Your task to perform on an android device: Open calendar and show me the second week of next month Image 0: 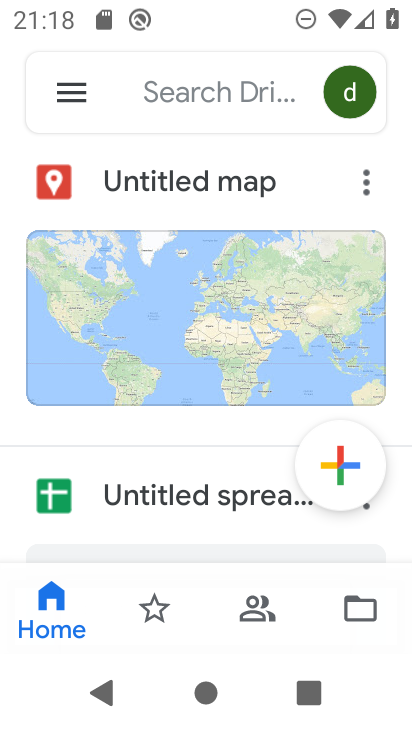
Step 0: press home button
Your task to perform on an android device: Open calendar and show me the second week of next month Image 1: 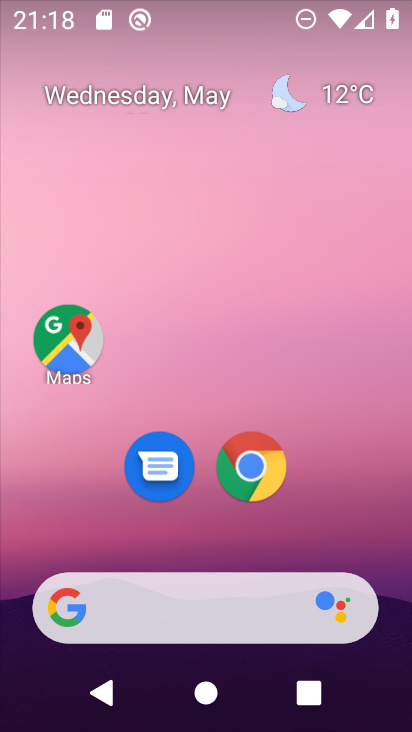
Step 1: drag from (204, 532) to (226, 73)
Your task to perform on an android device: Open calendar and show me the second week of next month Image 2: 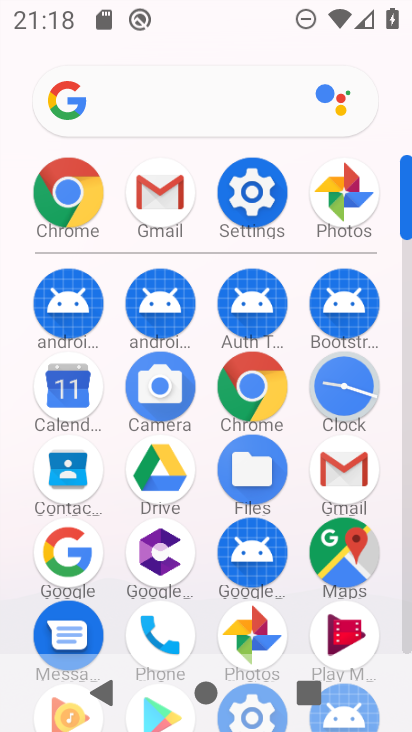
Step 2: click (67, 376)
Your task to perform on an android device: Open calendar and show me the second week of next month Image 3: 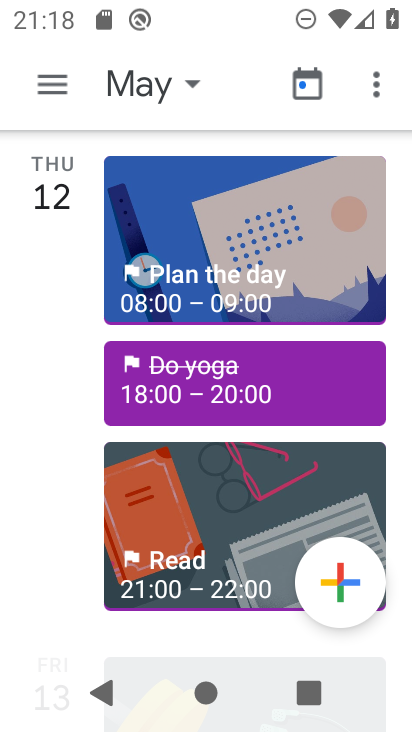
Step 3: click (53, 91)
Your task to perform on an android device: Open calendar and show me the second week of next month Image 4: 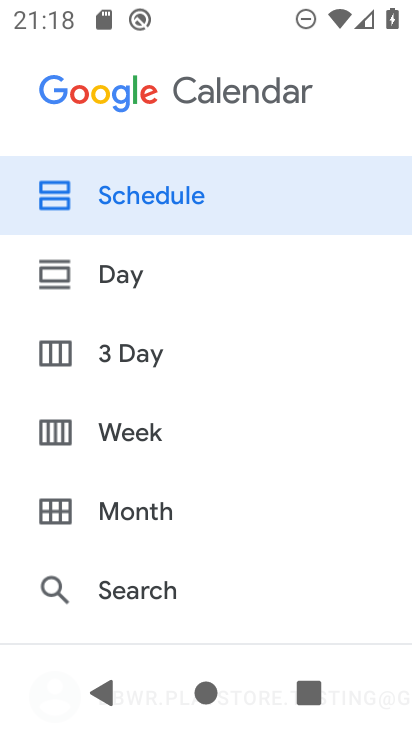
Step 4: click (82, 418)
Your task to perform on an android device: Open calendar and show me the second week of next month Image 5: 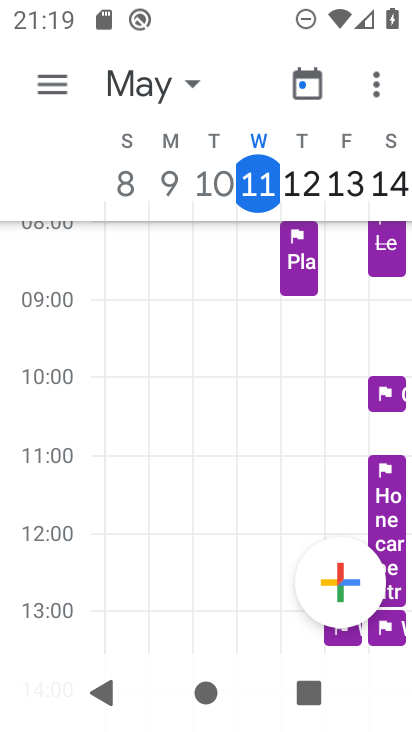
Step 5: drag from (392, 188) to (66, 239)
Your task to perform on an android device: Open calendar and show me the second week of next month Image 6: 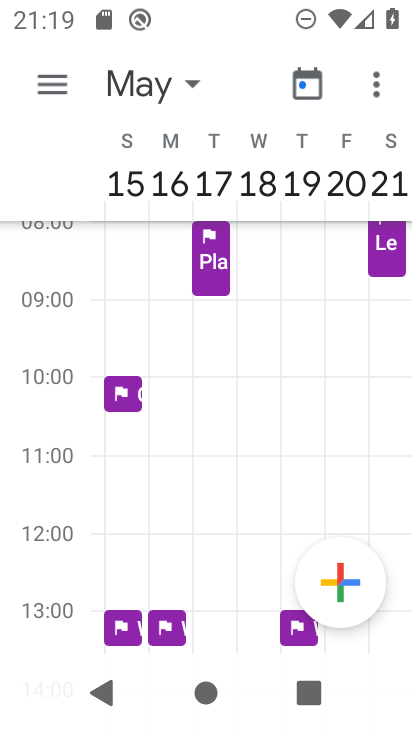
Step 6: drag from (169, 199) to (71, 199)
Your task to perform on an android device: Open calendar and show me the second week of next month Image 7: 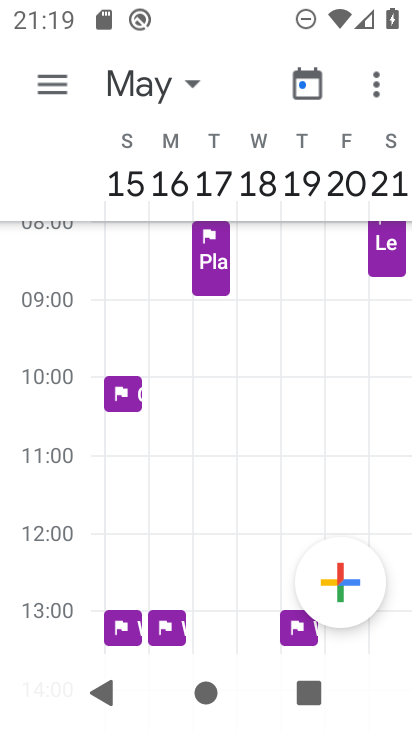
Step 7: drag from (393, 191) to (42, 216)
Your task to perform on an android device: Open calendar and show me the second week of next month Image 8: 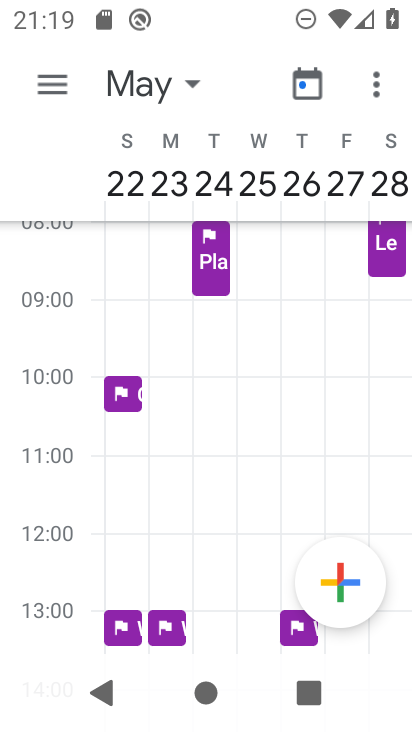
Step 8: drag from (377, 178) to (23, 179)
Your task to perform on an android device: Open calendar and show me the second week of next month Image 9: 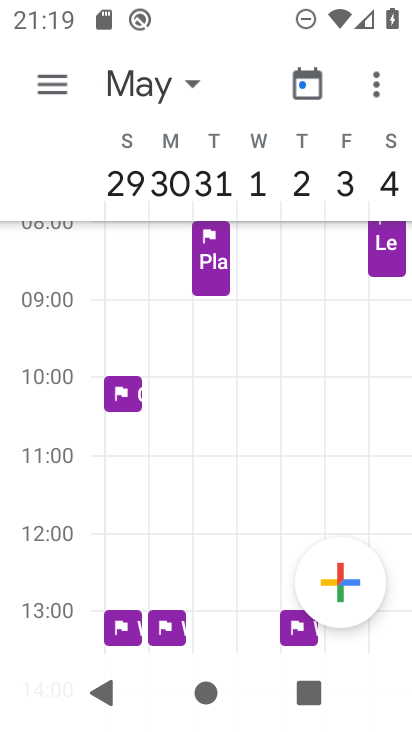
Step 9: drag from (380, 175) to (0, 191)
Your task to perform on an android device: Open calendar and show me the second week of next month Image 10: 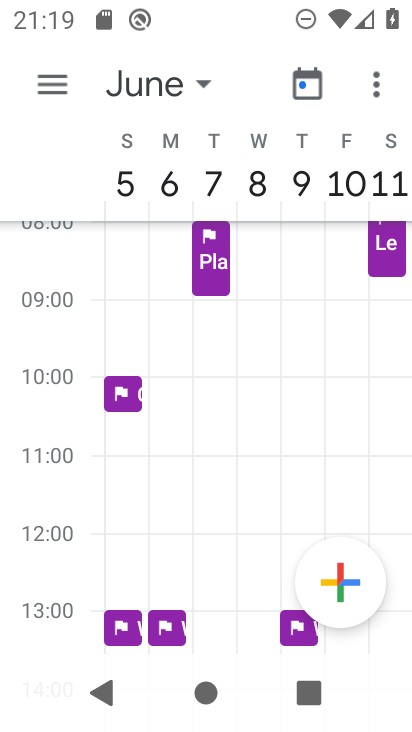
Step 10: click (120, 182)
Your task to perform on an android device: Open calendar and show me the second week of next month Image 11: 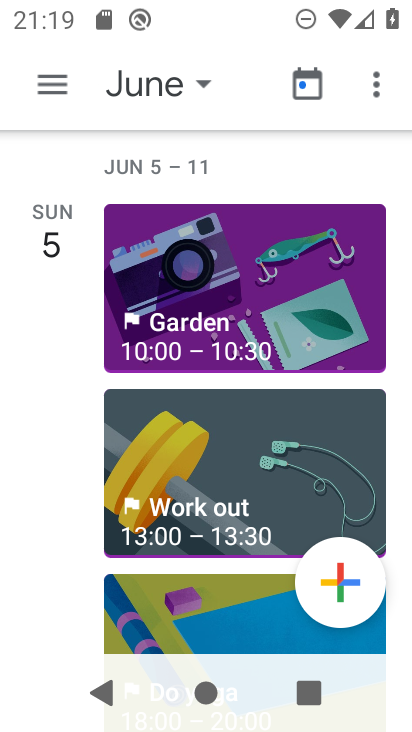
Step 11: drag from (70, 512) to (51, 166)
Your task to perform on an android device: Open calendar and show me the second week of next month Image 12: 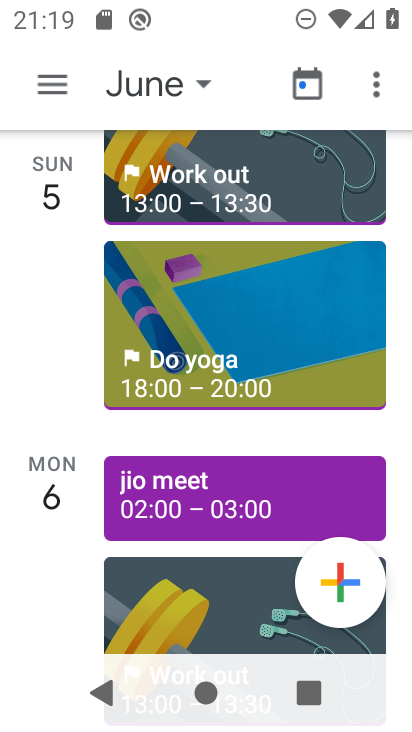
Step 12: click (52, 75)
Your task to perform on an android device: Open calendar and show me the second week of next month Image 13: 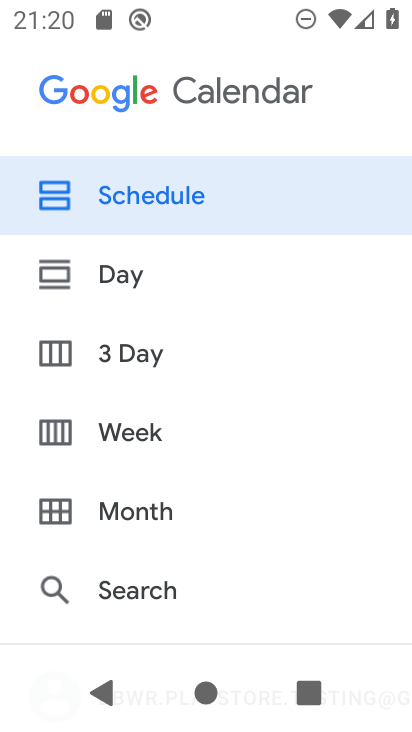
Step 13: click (82, 421)
Your task to perform on an android device: Open calendar and show me the second week of next month Image 14: 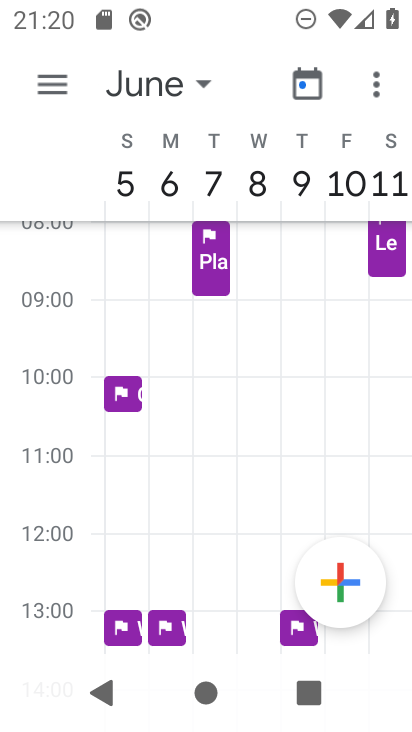
Step 14: click (124, 184)
Your task to perform on an android device: Open calendar and show me the second week of next month Image 15: 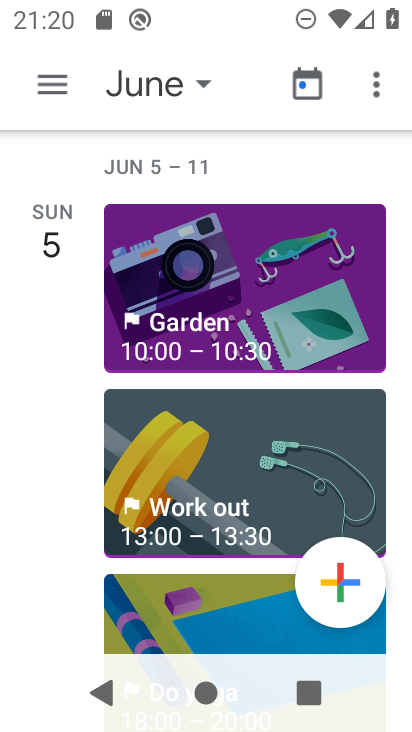
Step 15: task complete